Your task to perform on an android device: check out phone information Image 0: 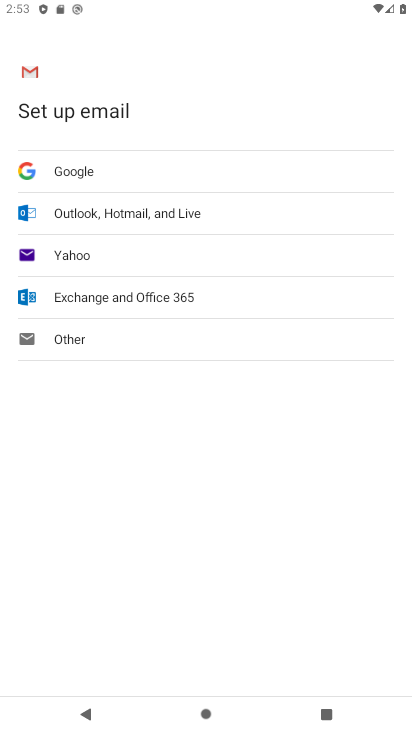
Step 0: press home button
Your task to perform on an android device: check out phone information Image 1: 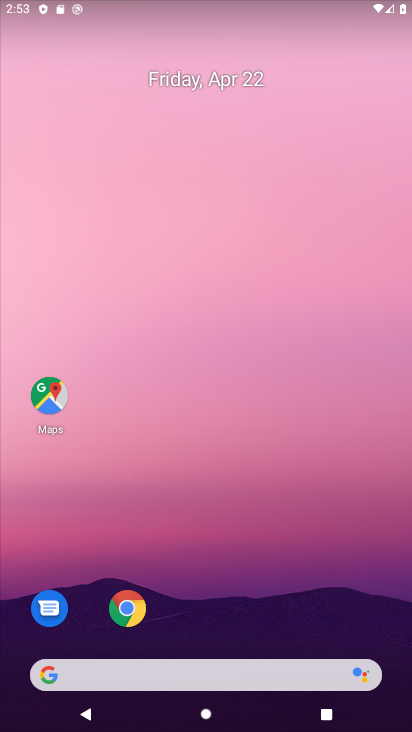
Step 1: drag from (256, 579) to (236, 34)
Your task to perform on an android device: check out phone information Image 2: 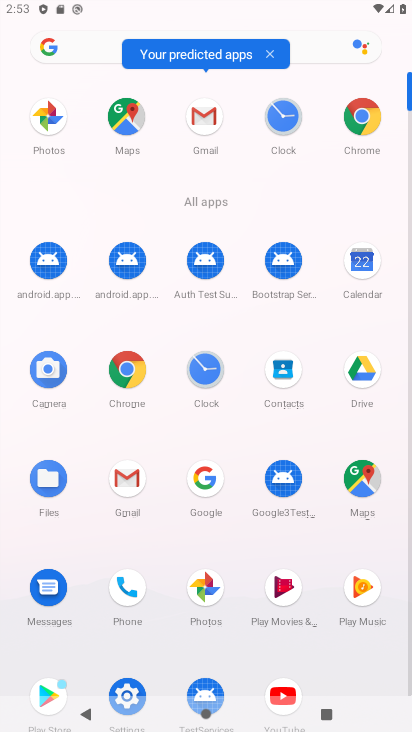
Step 2: drag from (243, 202) to (234, 0)
Your task to perform on an android device: check out phone information Image 3: 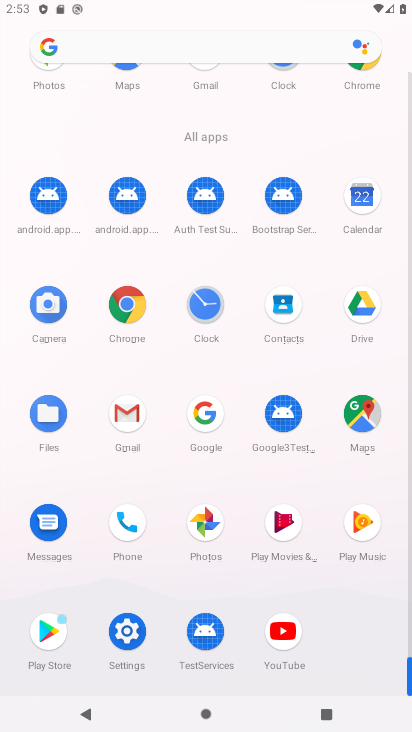
Step 3: click (130, 634)
Your task to perform on an android device: check out phone information Image 4: 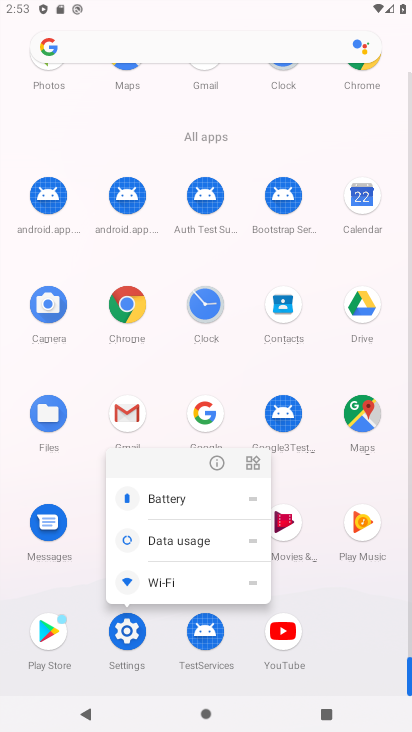
Step 4: click (128, 639)
Your task to perform on an android device: check out phone information Image 5: 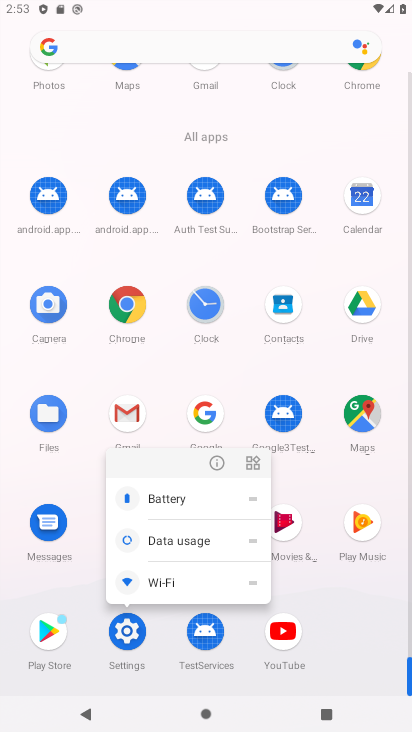
Step 5: click (125, 642)
Your task to perform on an android device: check out phone information Image 6: 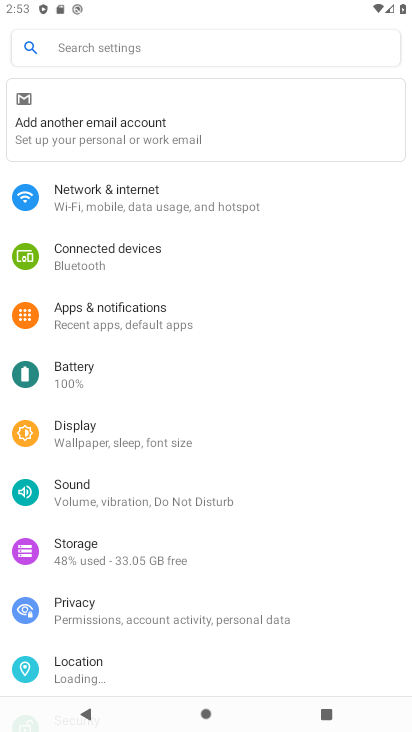
Step 6: drag from (232, 525) to (184, 11)
Your task to perform on an android device: check out phone information Image 7: 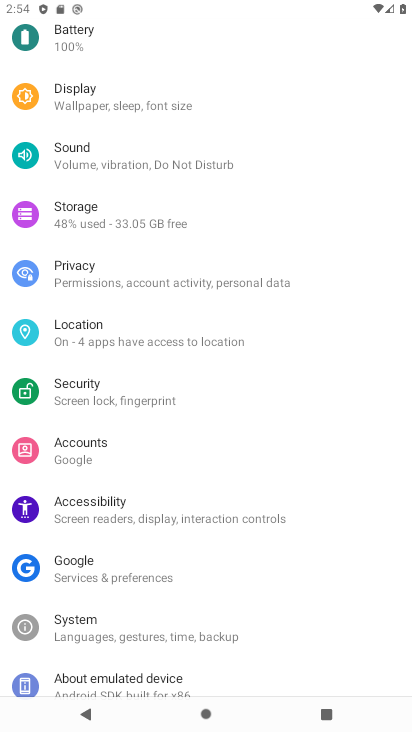
Step 7: drag from (206, 669) to (223, 169)
Your task to perform on an android device: check out phone information Image 8: 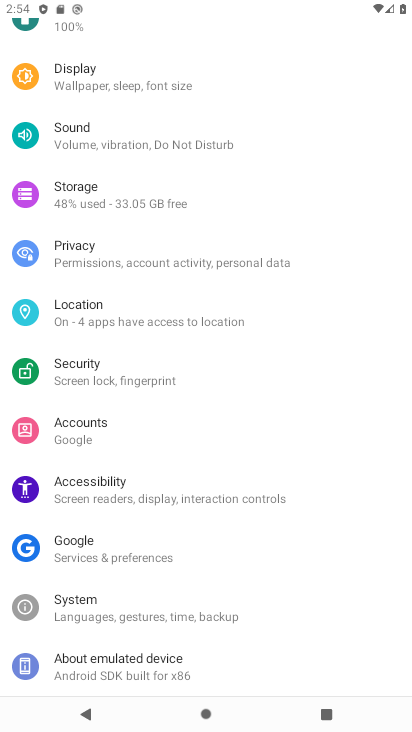
Step 8: click (137, 663)
Your task to perform on an android device: check out phone information Image 9: 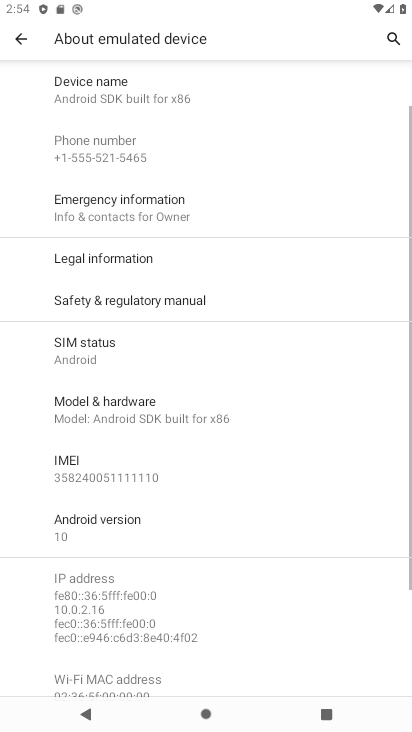
Step 9: task complete